Your task to perform on an android device: open device folders in google photos Image 0: 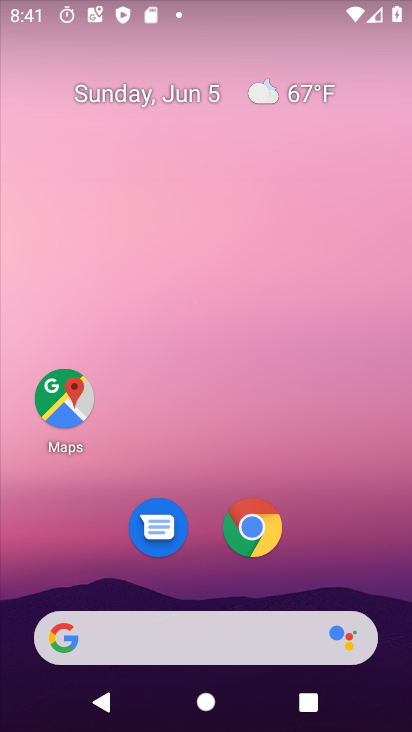
Step 0: drag from (243, 723) to (196, 182)
Your task to perform on an android device: open device folders in google photos Image 1: 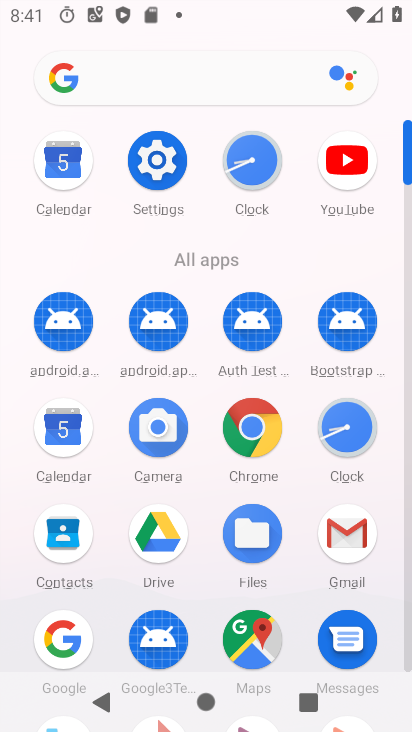
Step 1: drag from (211, 609) to (218, 267)
Your task to perform on an android device: open device folders in google photos Image 2: 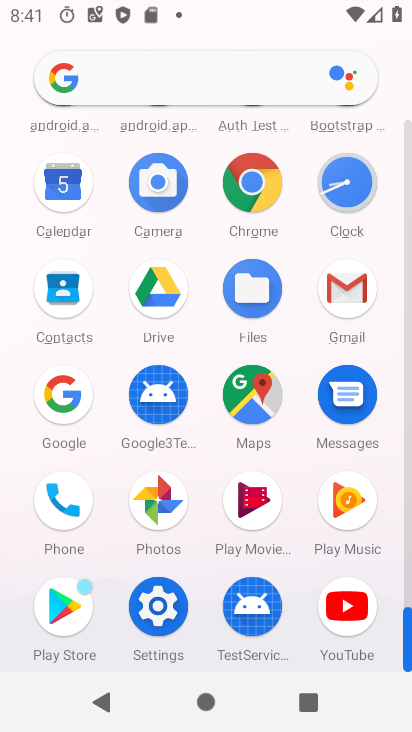
Step 2: click (163, 491)
Your task to perform on an android device: open device folders in google photos Image 3: 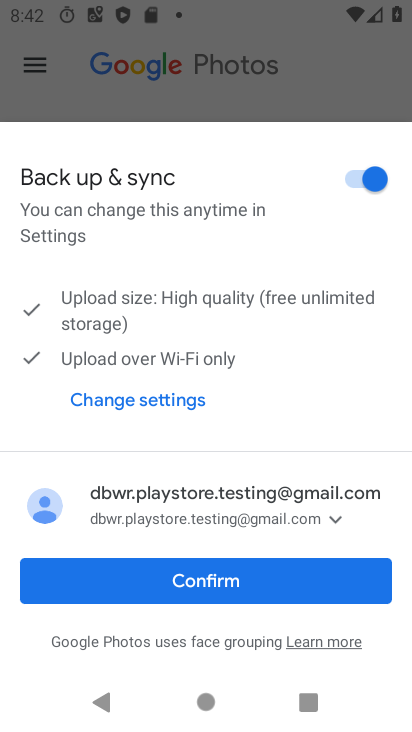
Step 3: click (220, 584)
Your task to perform on an android device: open device folders in google photos Image 4: 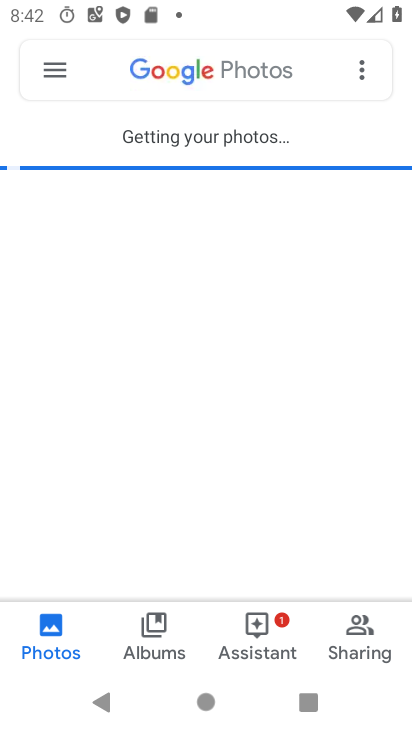
Step 4: click (44, 69)
Your task to perform on an android device: open device folders in google photos Image 5: 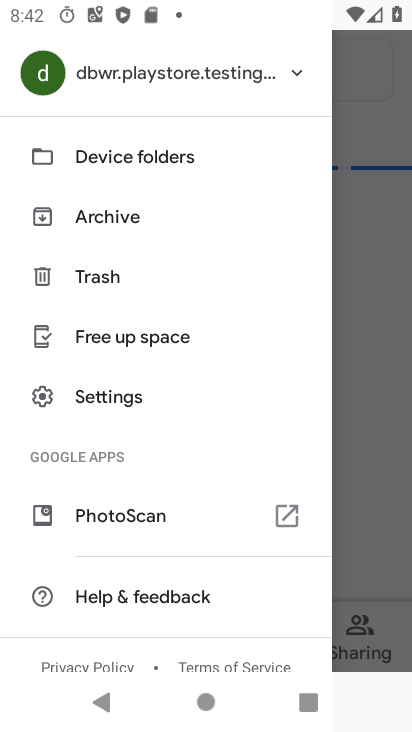
Step 5: click (125, 150)
Your task to perform on an android device: open device folders in google photos Image 6: 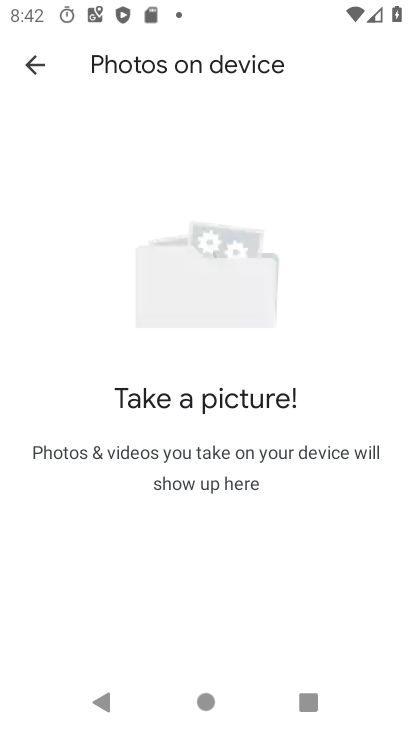
Step 6: task complete